Your task to perform on an android device: Open Reddit.com Image 0: 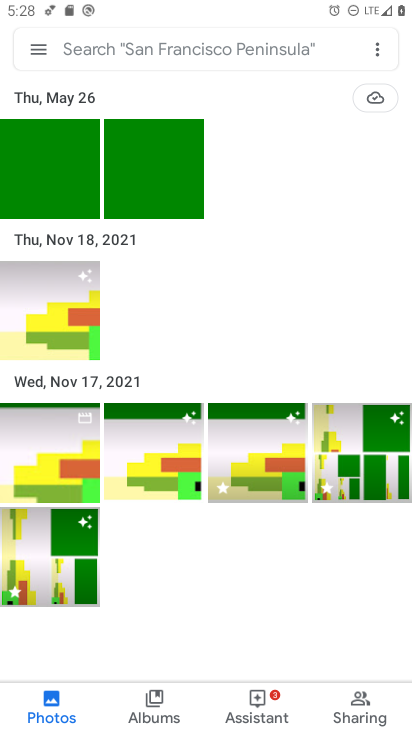
Step 0: press home button
Your task to perform on an android device: Open Reddit.com Image 1: 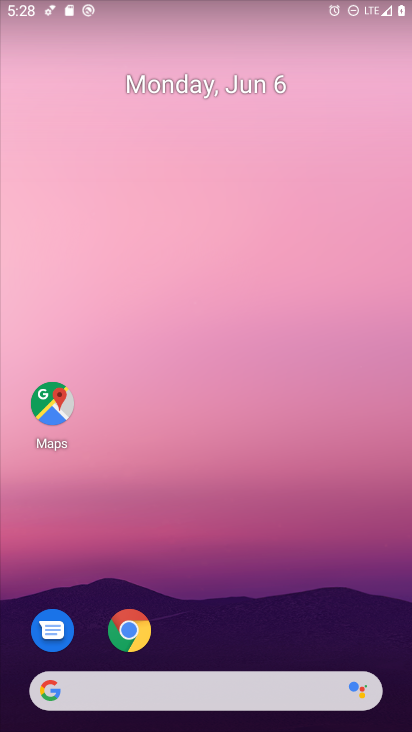
Step 1: click (122, 636)
Your task to perform on an android device: Open Reddit.com Image 2: 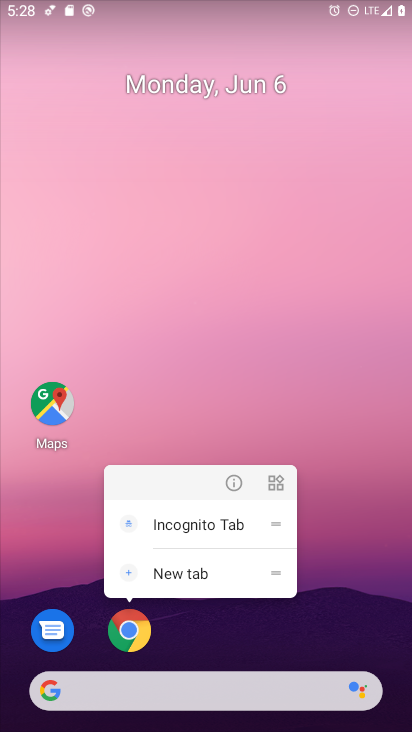
Step 2: click (141, 632)
Your task to perform on an android device: Open Reddit.com Image 3: 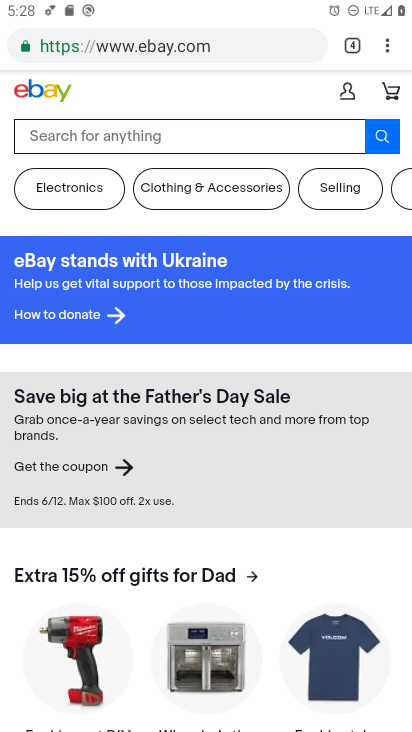
Step 3: click (349, 44)
Your task to perform on an android device: Open Reddit.com Image 4: 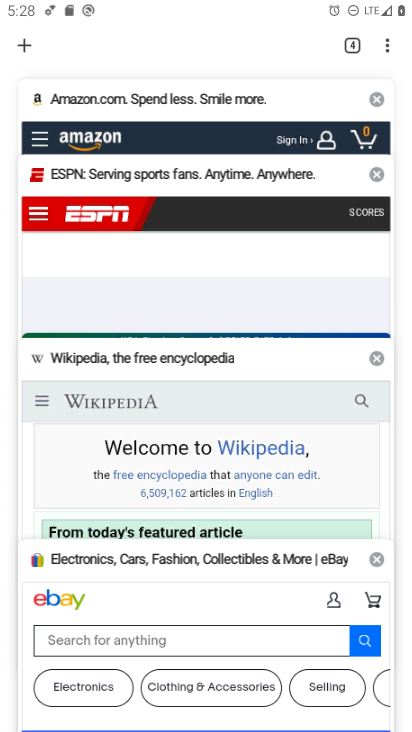
Step 4: drag from (185, 142) to (157, 487)
Your task to perform on an android device: Open Reddit.com Image 5: 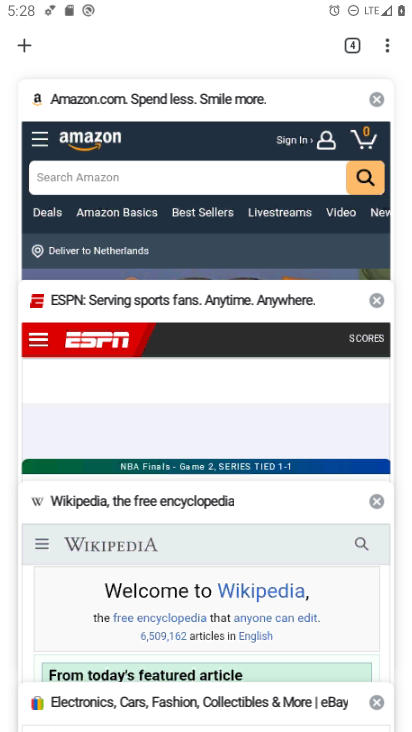
Step 5: click (21, 26)
Your task to perform on an android device: Open Reddit.com Image 6: 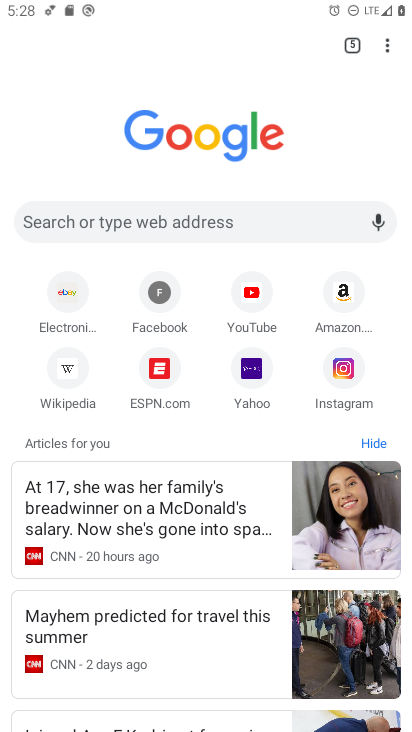
Step 6: click (204, 211)
Your task to perform on an android device: Open Reddit.com Image 7: 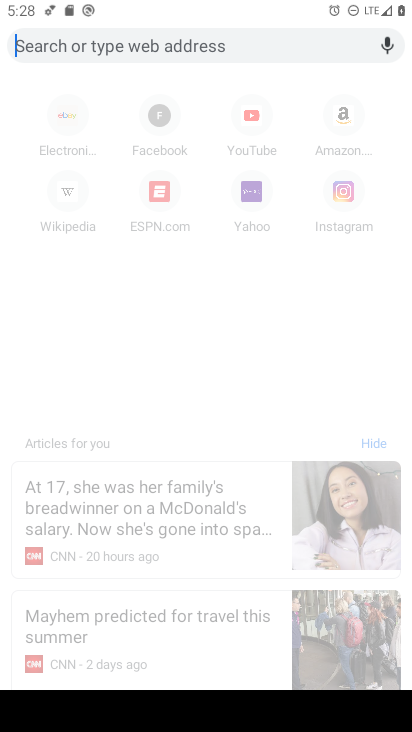
Step 7: type ""
Your task to perform on an android device: Open Reddit.com Image 8: 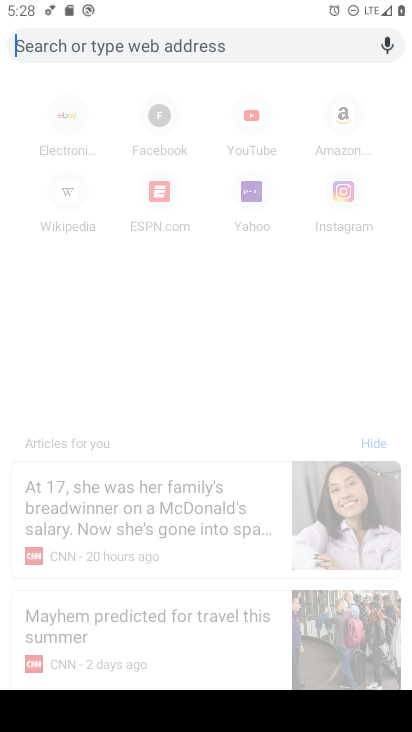
Step 8: type "reddit.com"
Your task to perform on an android device: Open Reddit.com Image 9: 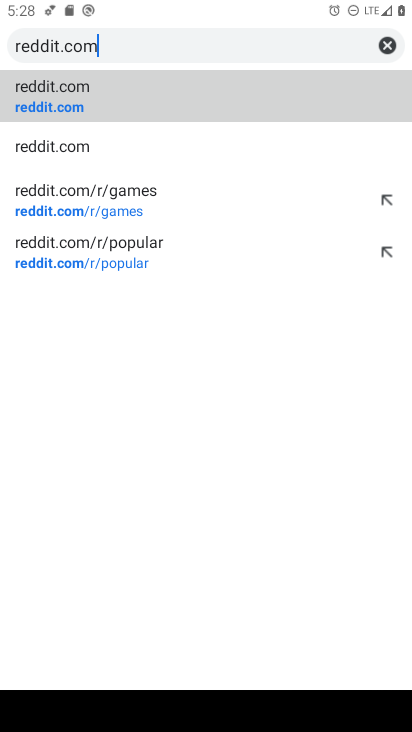
Step 9: click (205, 109)
Your task to perform on an android device: Open Reddit.com Image 10: 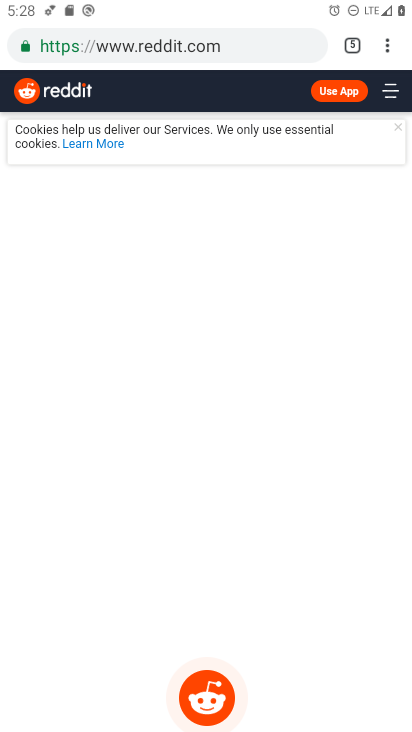
Step 10: task complete